Your task to perform on an android device: Install the Instagram app Image 0: 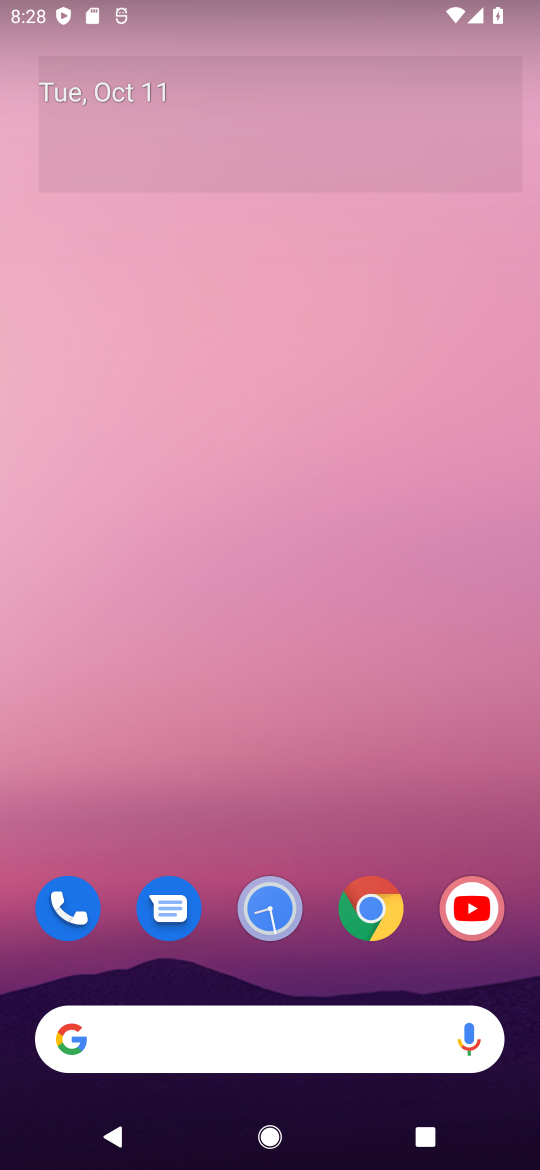
Step 0: drag from (292, 843) to (364, 174)
Your task to perform on an android device: Install the Instagram app Image 1: 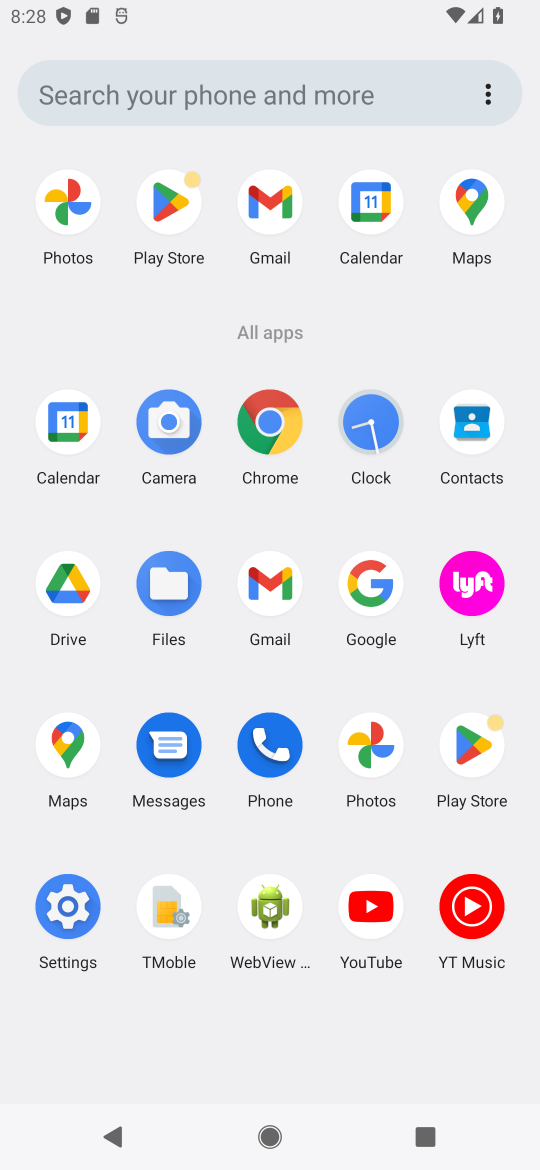
Step 1: click (160, 201)
Your task to perform on an android device: Install the Instagram app Image 2: 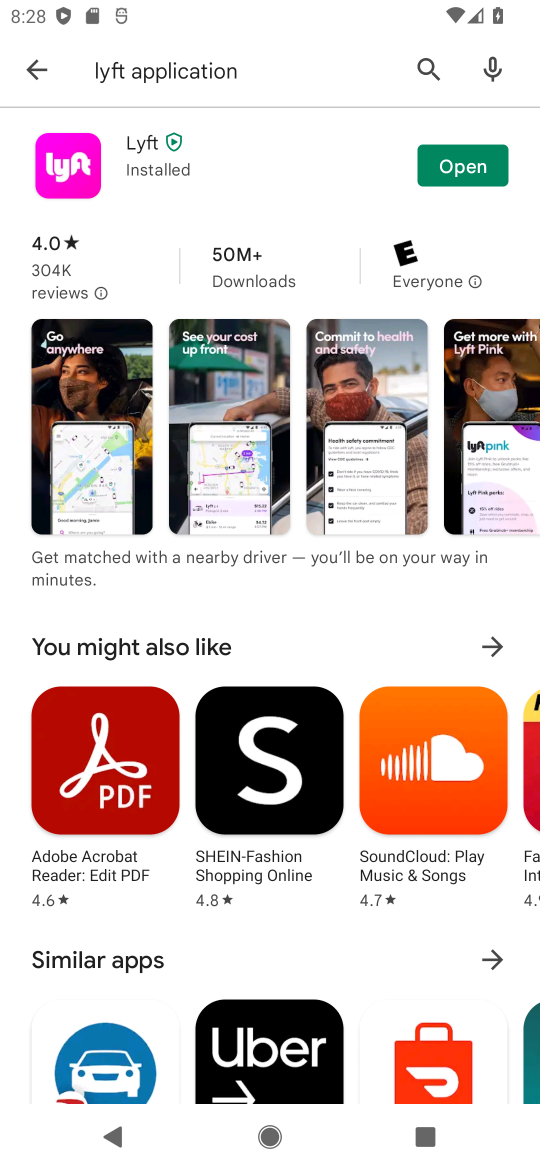
Step 2: click (34, 68)
Your task to perform on an android device: Install the Instagram app Image 3: 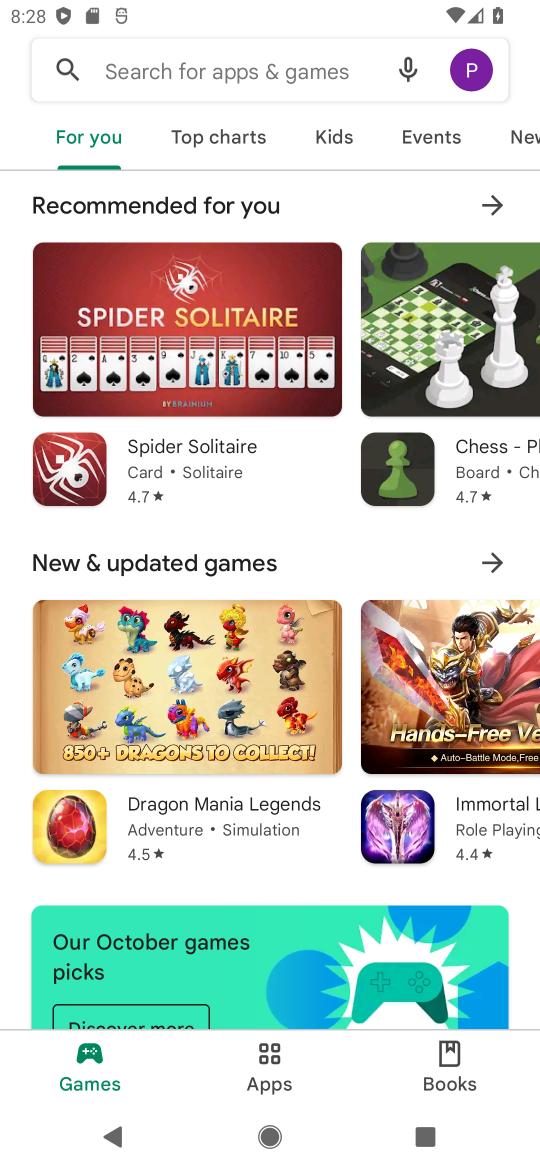
Step 3: click (188, 65)
Your task to perform on an android device: Install the Instagram app Image 4: 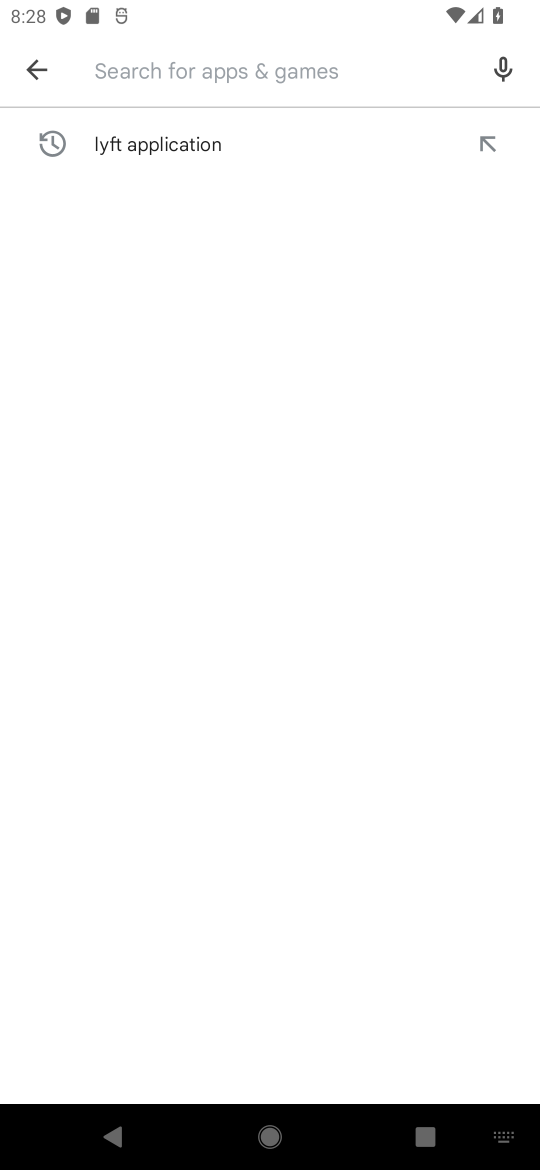
Step 4: type "instagram"
Your task to perform on an android device: Install the Instagram app Image 5: 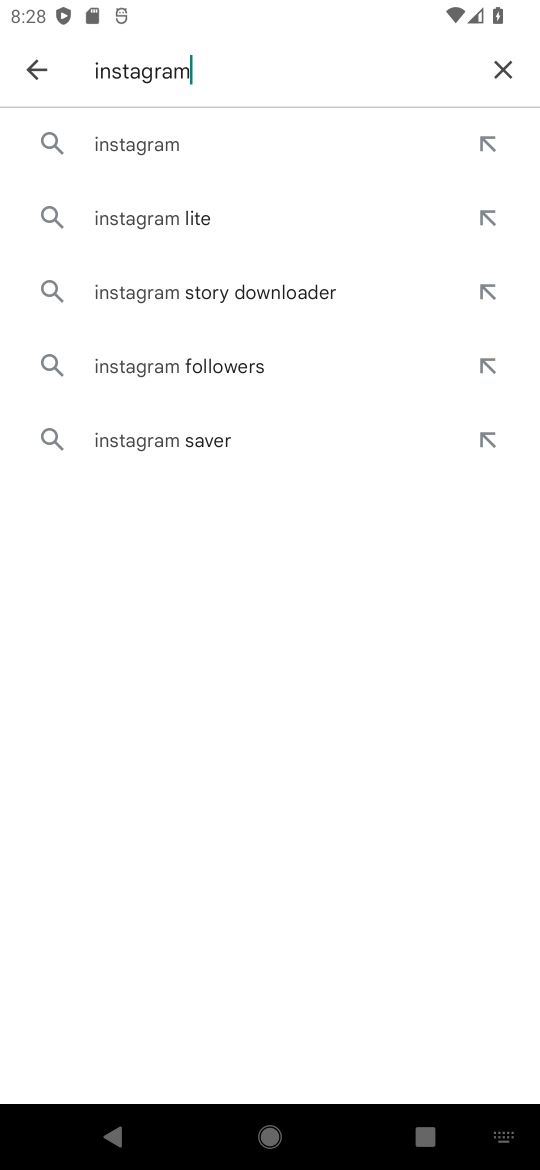
Step 5: click (149, 141)
Your task to perform on an android device: Install the Instagram app Image 6: 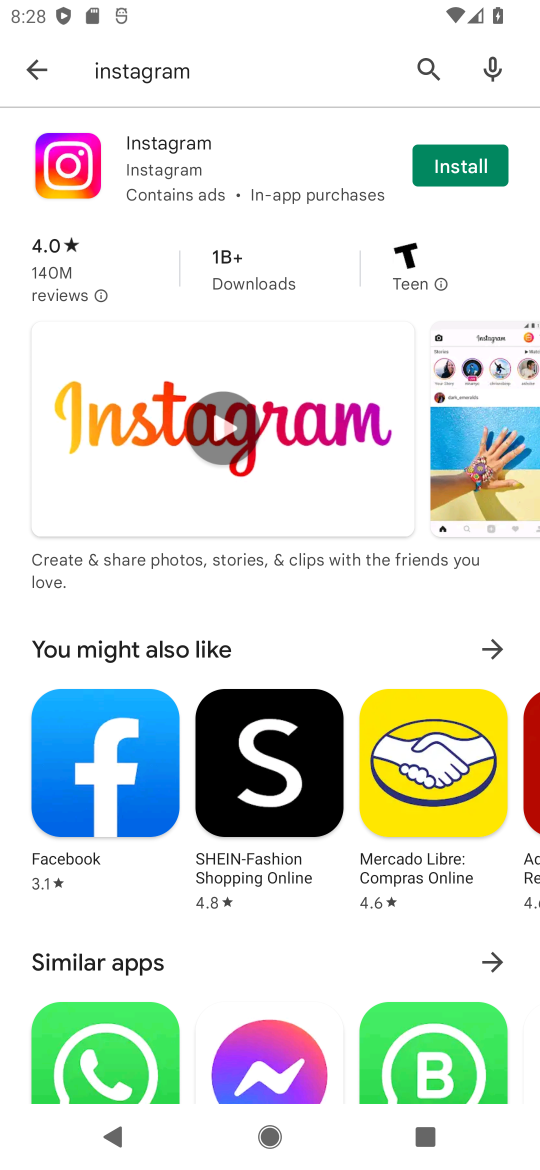
Step 6: click (448, 168)
Your task to perform on an android device: Install the Instagram app Image 7: 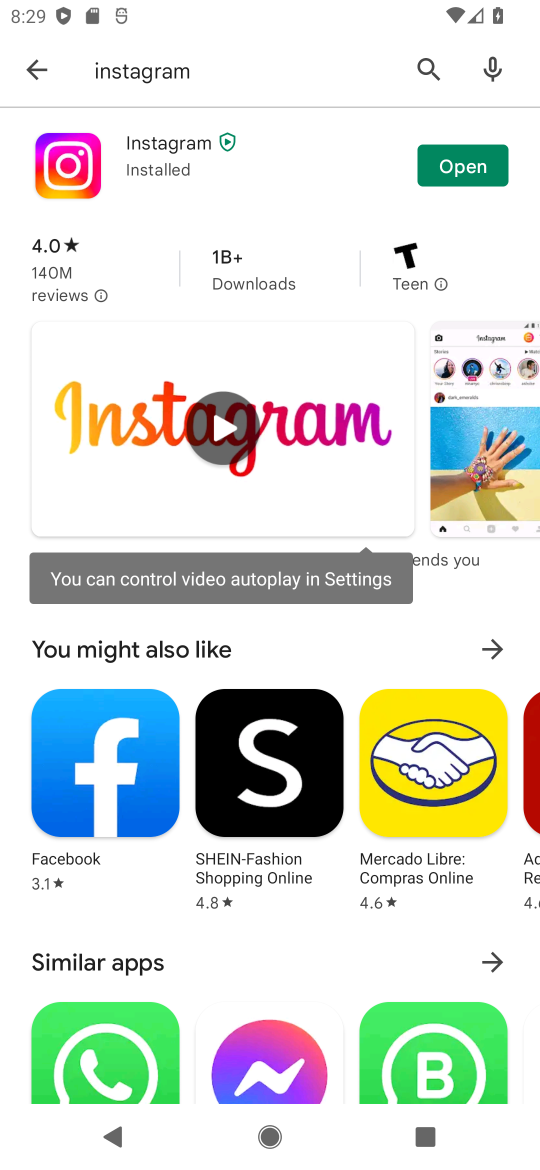
Step 7: task complete